Your task to perform on an android device: Show me popular videos on Youtube Image 0: 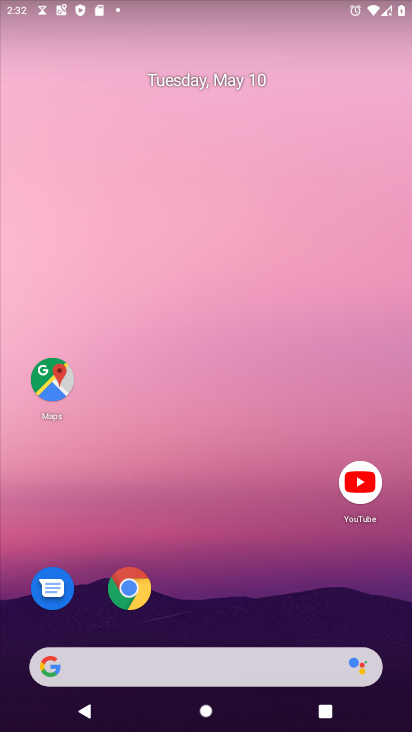
Step 0: drag from (163, 623) to (197, 251)
Your task to perform on an android device: Show me popular videos on Youtube Image 1: 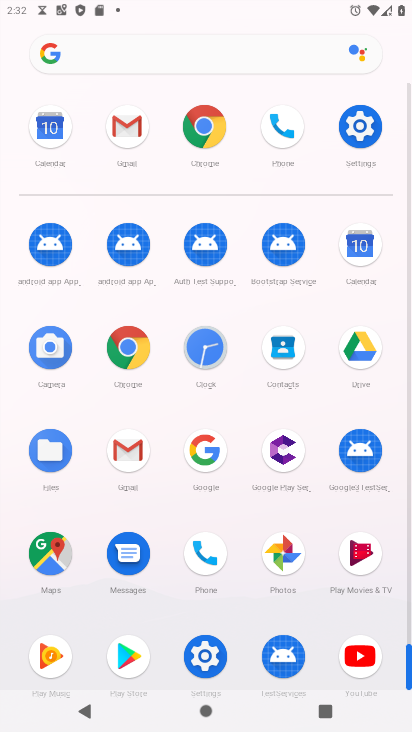
Step 1: click (351, 656)
Your task to perform on an android device: Show me popular videos on Youtube Image 2: 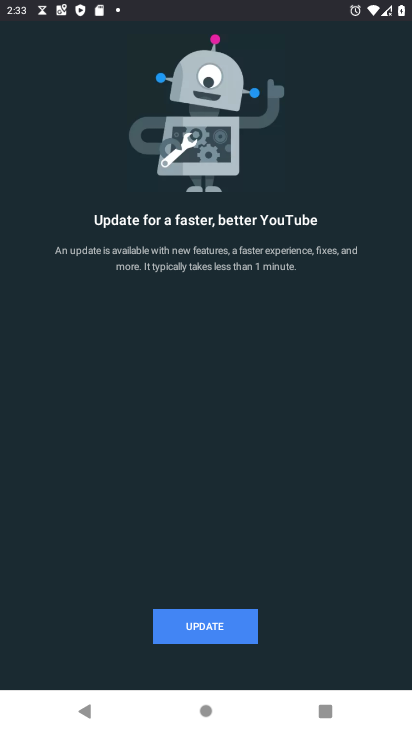
Step 2: task complete